Your task to perform on an android device: create a new album in the google photos Image 0: 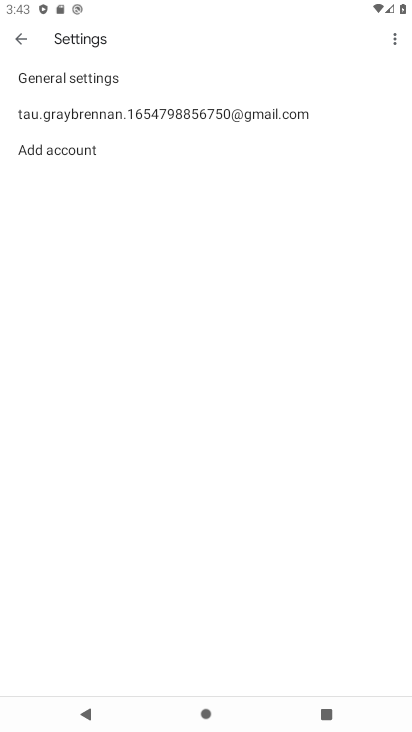
Step 0: press home button
Your task to perform on an android device: create a new album in the google photos Image 1: 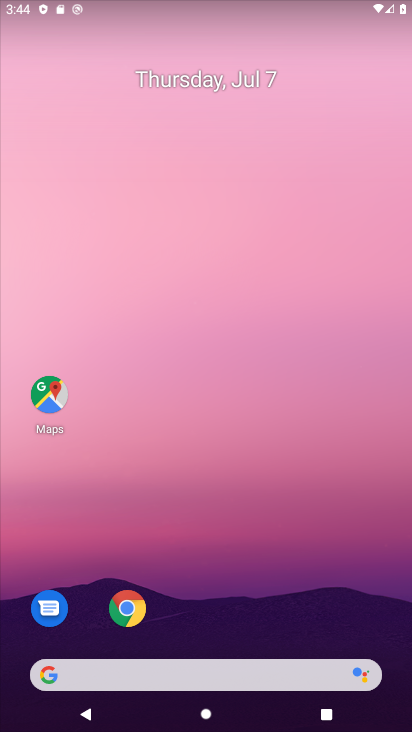
Step 1: drag from (355, 533) to (329, 261)
Your task to perform on an android device: create a new album in the google photos Image 2: 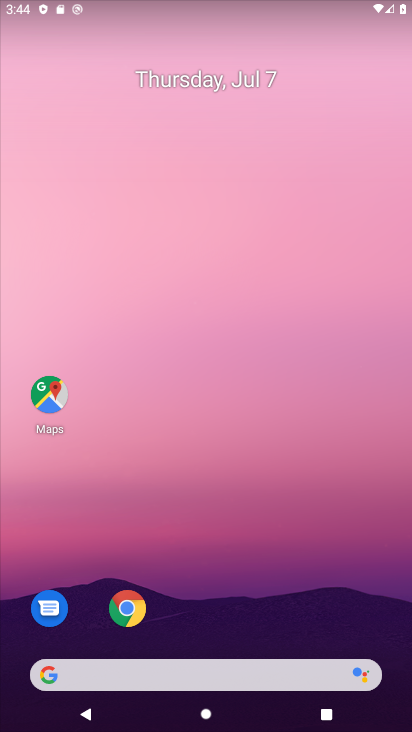
Step 2: drag from (334, 585) to (275, 272)
Your task to perform on an android device: create a new album in the google photos Image 3: 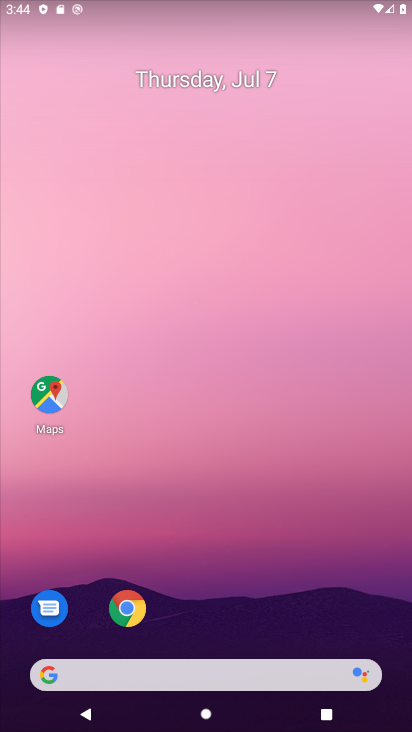
Step 3: drag from (264, 653) to (259, 15)
Your task to perform on an android device: create a new album in the google photos Image 4: 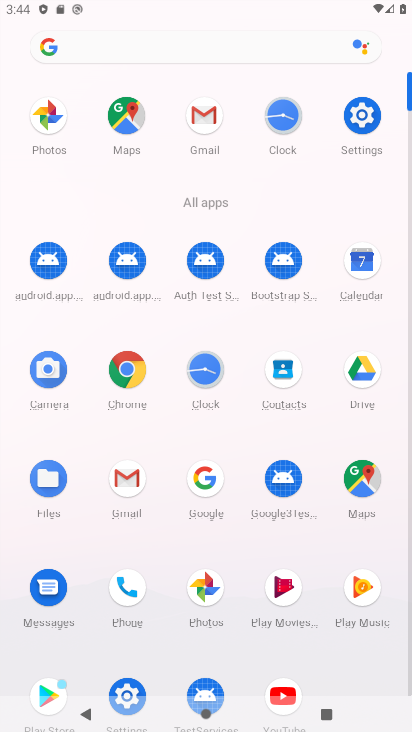
Step 4: click (203, 584)
Your task to perform on an android device: create a new album in the google photos Image 5: 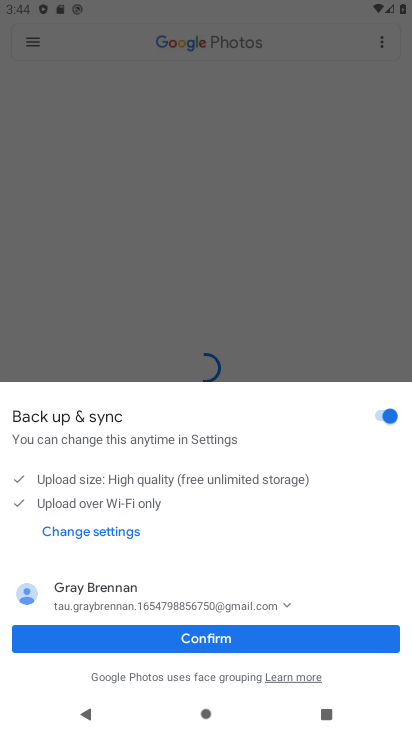
Step 5: task complete